Your task to perform on an android device: turn off wifi Image 0: 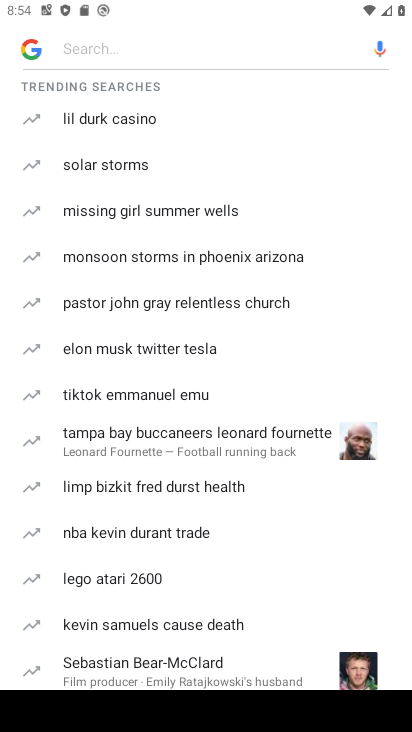
Step 0: press home button
Your task to perform on an android device: turn off wifi Image 1: 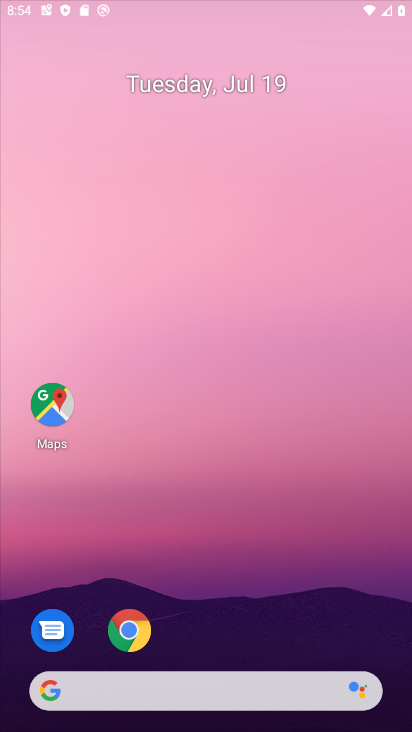
Step 1: drag from (205, 641) to (274, 75)
Your task to perform on an android device: turn off wifi Image 2: 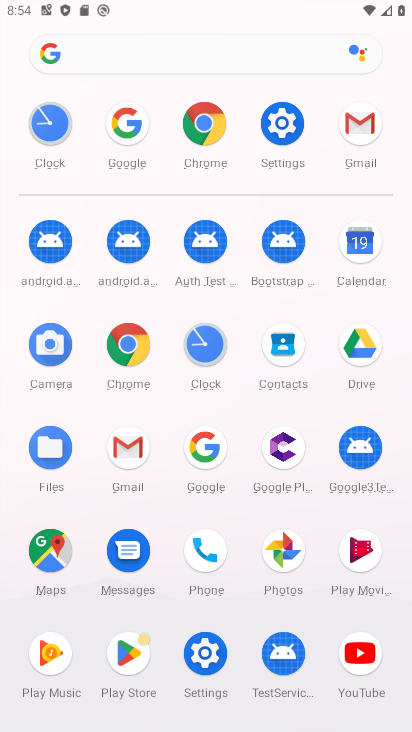
Step 2: click (288, 127)
Your task to perform on an android device: turn off wifi Image 3: 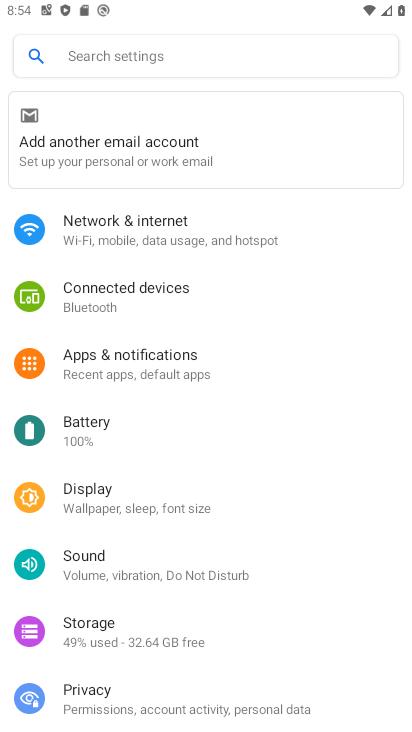
Step 3: click (186, 240)
Your task to perform on an android device: turn off wifi Image 4: 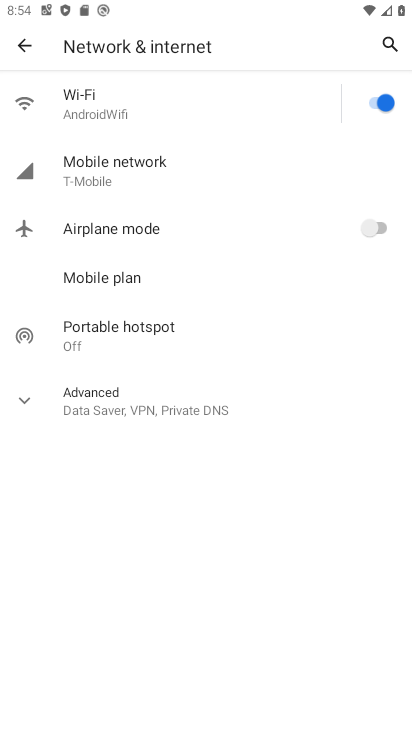
Step 4: click (380, 108)
Your task to perform on an android device: turn off wifi Image 5: 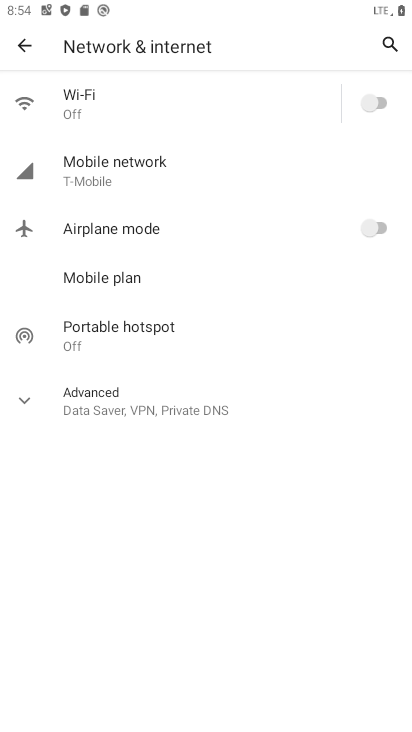
Step 5: task complete